Your task to perform on an android device: Open my contact list Image 0: 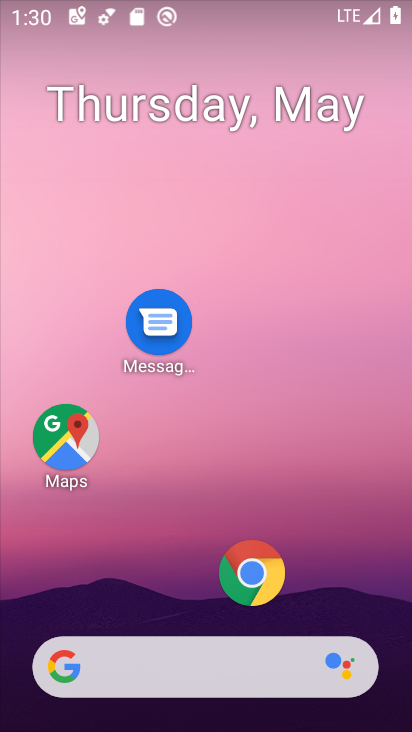
Step 0: click (219, 50)
Your task to perform on an android device: Open my contact list Image 1: 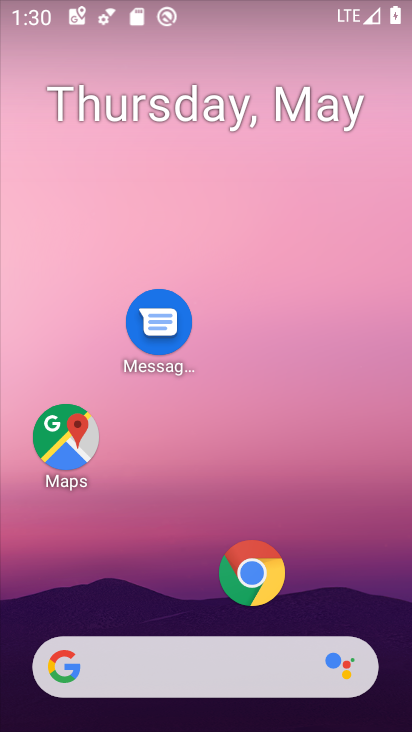
Step 1: drag from (179, 614) to (190, 179)
Your task to perform on an android device: Open my contact list Image 2: 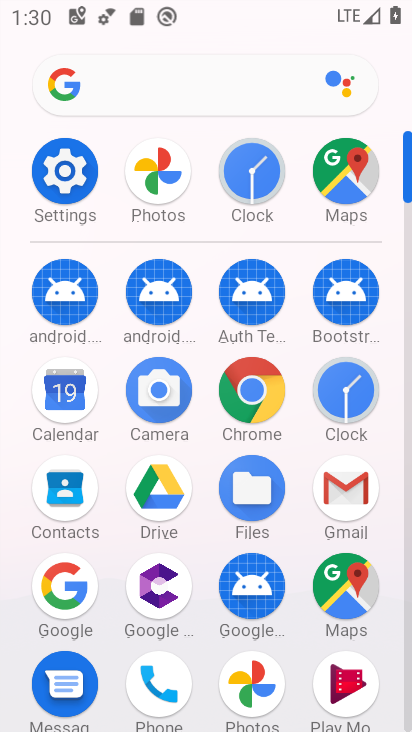
Step 2: click (63, 512)
Your task to perform on an android device: Open my contact list Image 3: 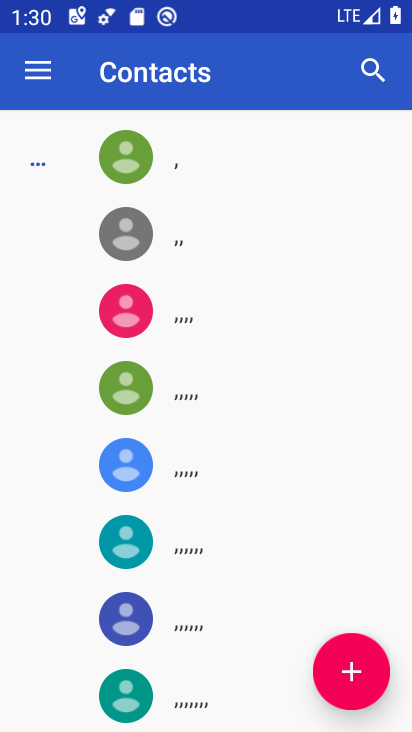
Step 3: task complete